Your task to perform on an android device: turn vacation reply on in the gmail app Image 0: 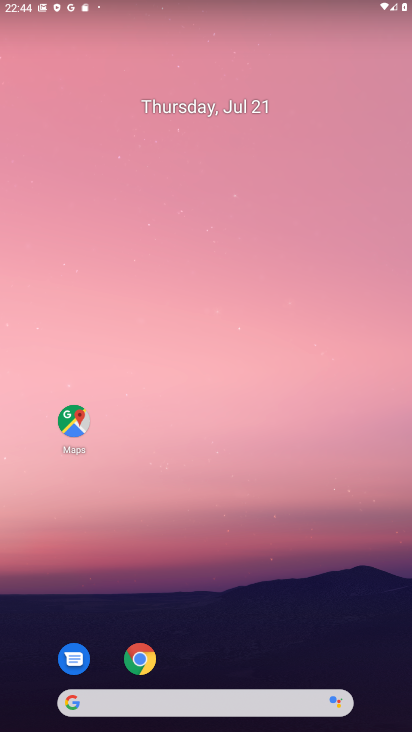
Step 0: drag from (220, 698) to (236, 180)
Your task to perform on an android device: turn vacation reply on in the gmail app Image 1: 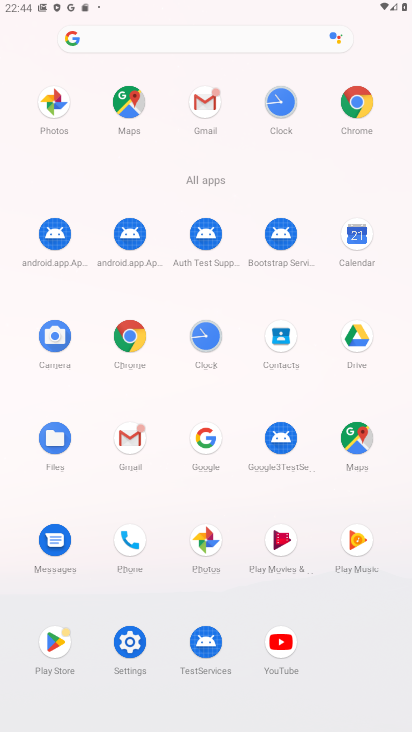
Step 1: click (206, 103)
Your task to perform on an android device: turn vacation reply on in the gmail app Image 2: 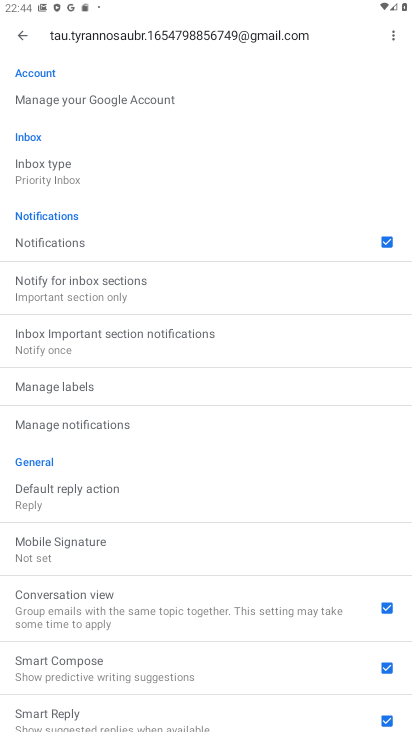
Step 2: drag from (116, 453) to (173, 358)
Your task to perform on an android device: turn vacation reply on in the gmail app Image 3: 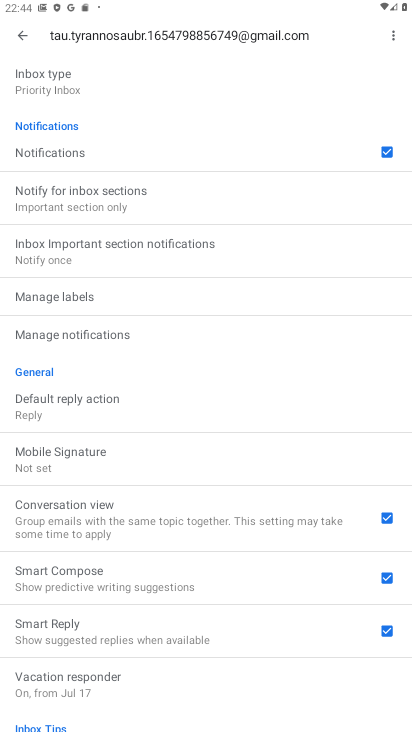
Step 3: drag from (117, 617) to (230, 407)
Your task to perform on an android device: turn vacation reply on in the gmail app Image 4: 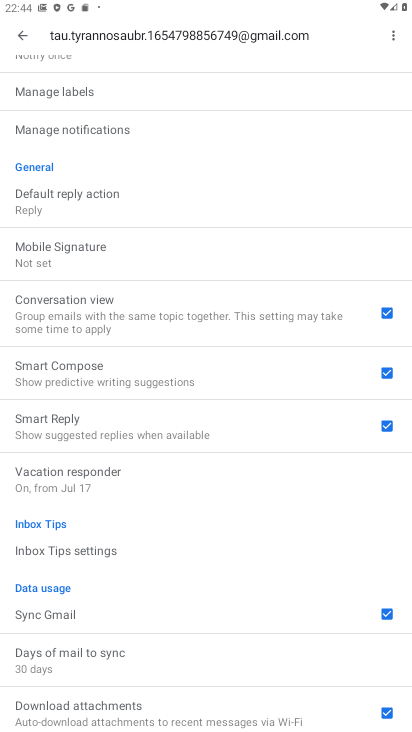
Step 4: click (79, 475)
Your task to perform on an android device: turn vacation reply on in the gmail app Image 5: 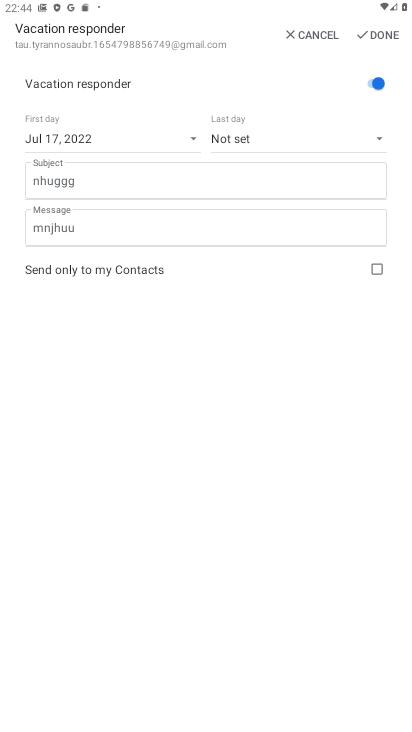
Step 5: task complete